Your task to perform on an android device: Go to Maps Image 0: 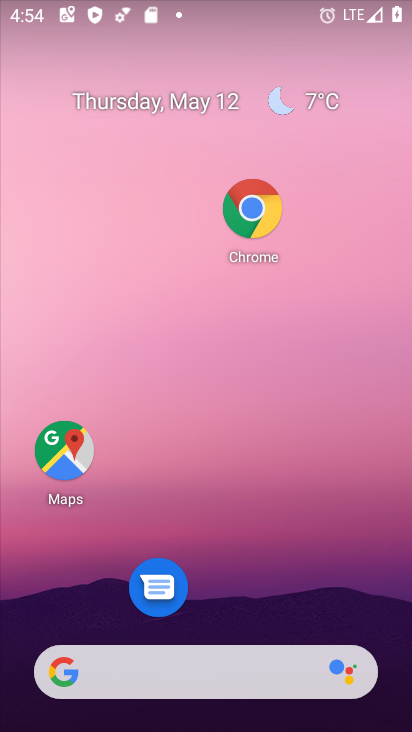
Step 0: click (48, 460)
Your task to perform on an android device: Go to Maps Image 1: 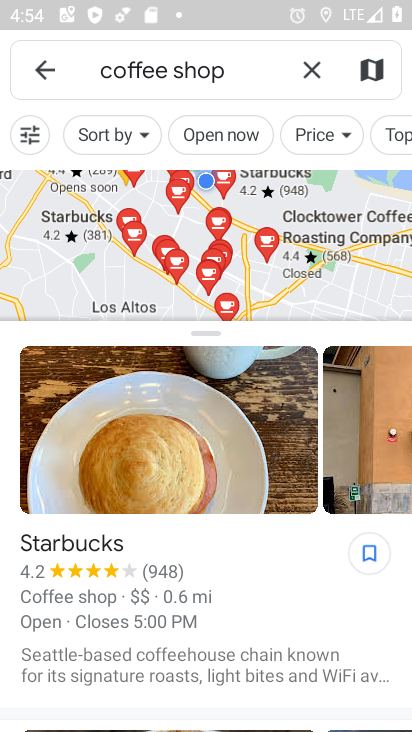
Step 1: task complete